Your task to perform on an android device: Do I have any events this weekend? Image 0: 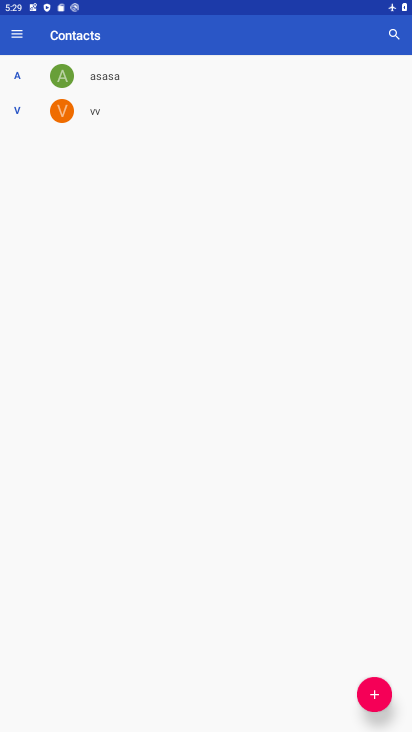
Step 0: press home button
Your task to perform on an android device: Do I have any events this weekend? Image 1: 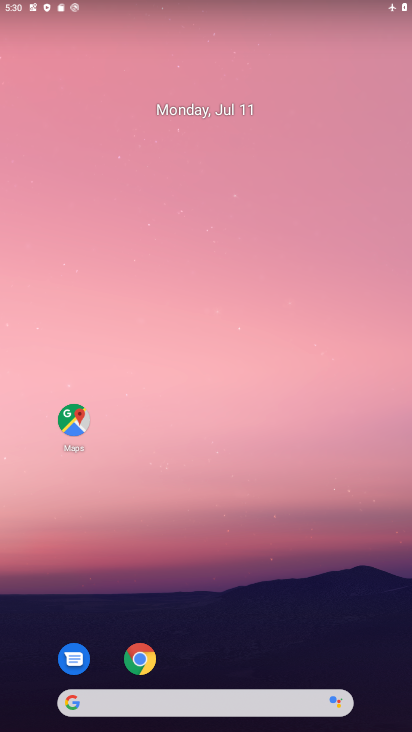
Step 1: drag from (351, 621) to (279, 40)
Your task to perform on an android device: Do I have any events this weekend? Image 2: 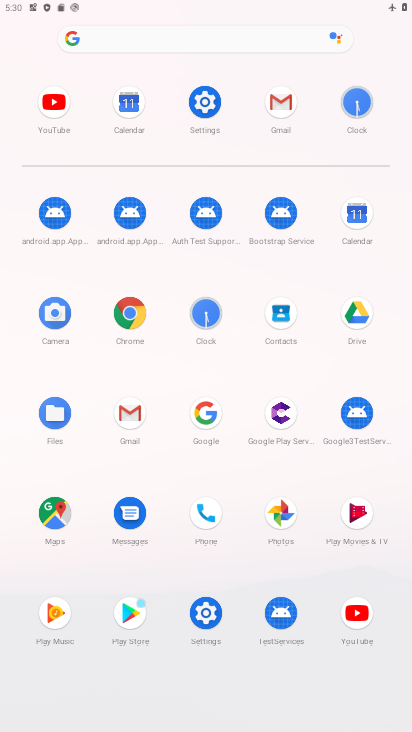
Step 2: click (358, 215)
Your task to perform on an android device: Do I have any events this weekend? Image 3: 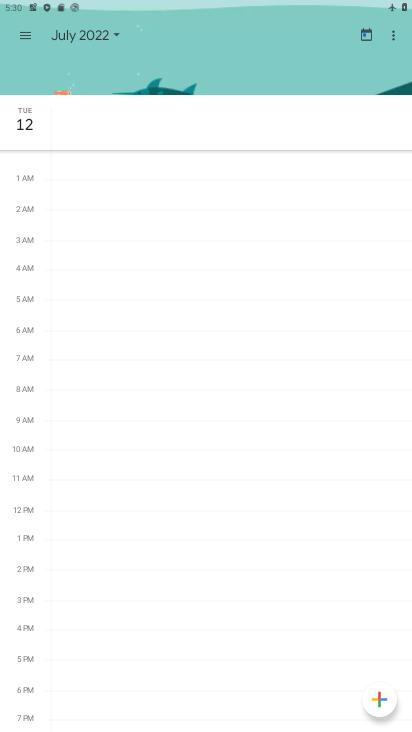
Step 3: click (28, 33)
Your task to perform on an android device: Do I have any events this weekend? Image 4: 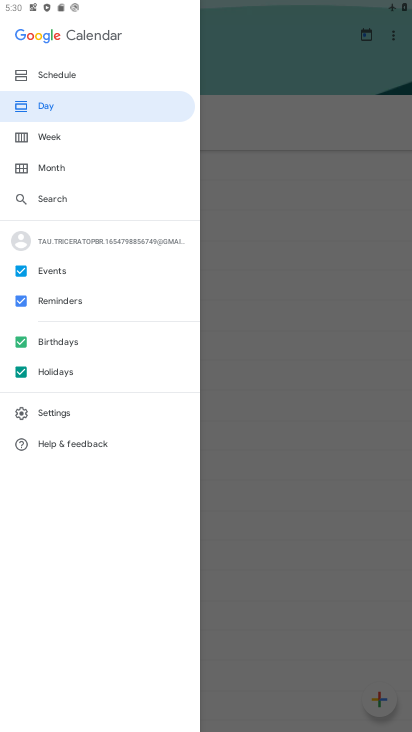
Step 4: click (54, 135)
Your task to perform on an android device: Do I have any events this weekend? Image 5: 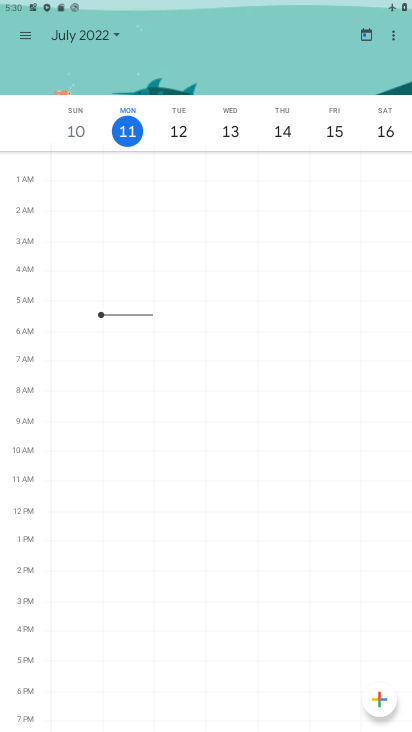
Step 5: task complete